Your task to perform on an android device: open app "The Home Depot" (install if not already installed) and go to login screen Image 0: 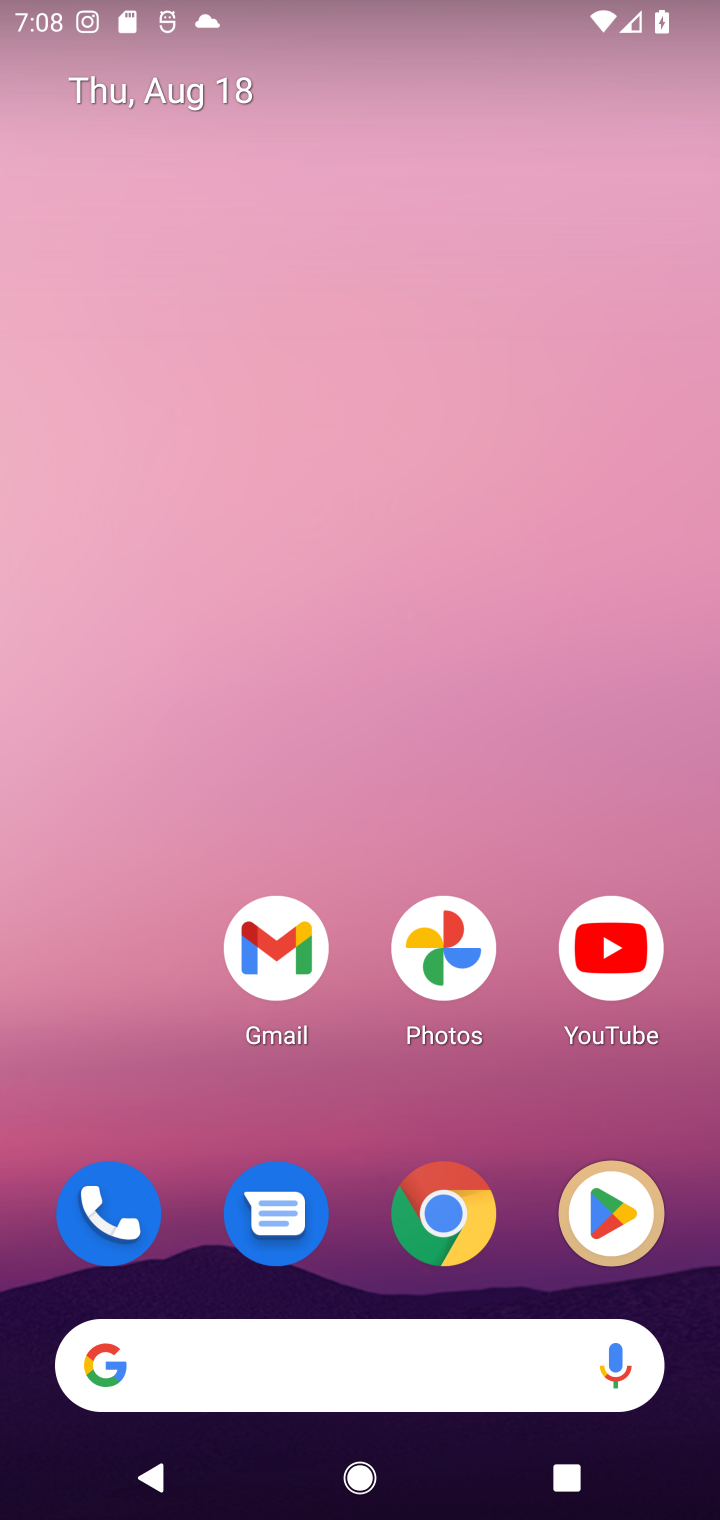
Step 0: press home button
Your task to perform on an android device: open app "The Home Depot" (install if not already installed) and go to login screen Image 1: 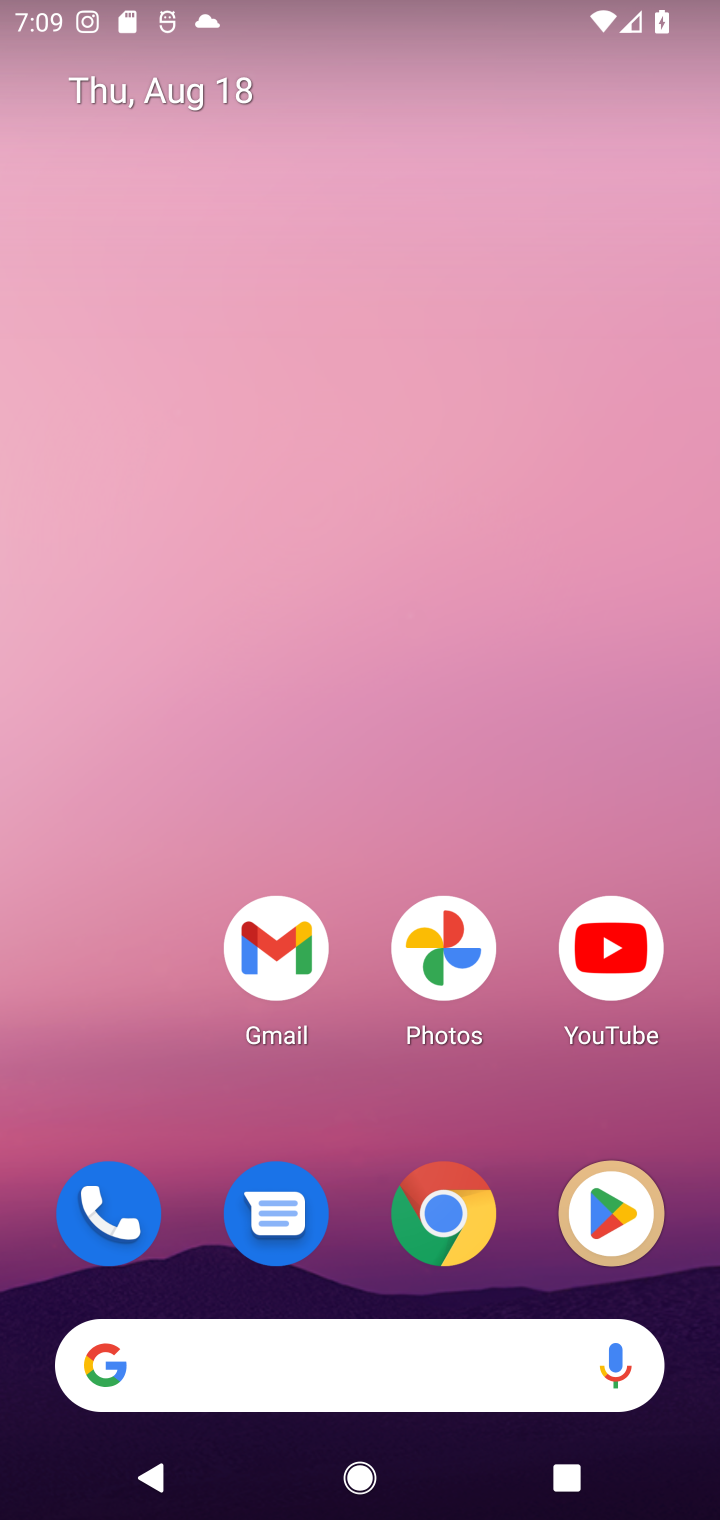
Step 1: drag from (397, 1094) to (369, 2)
Your task to perform on an android device: open app "The Home Depot" (install if not already installed) and go to login screen Image 2: 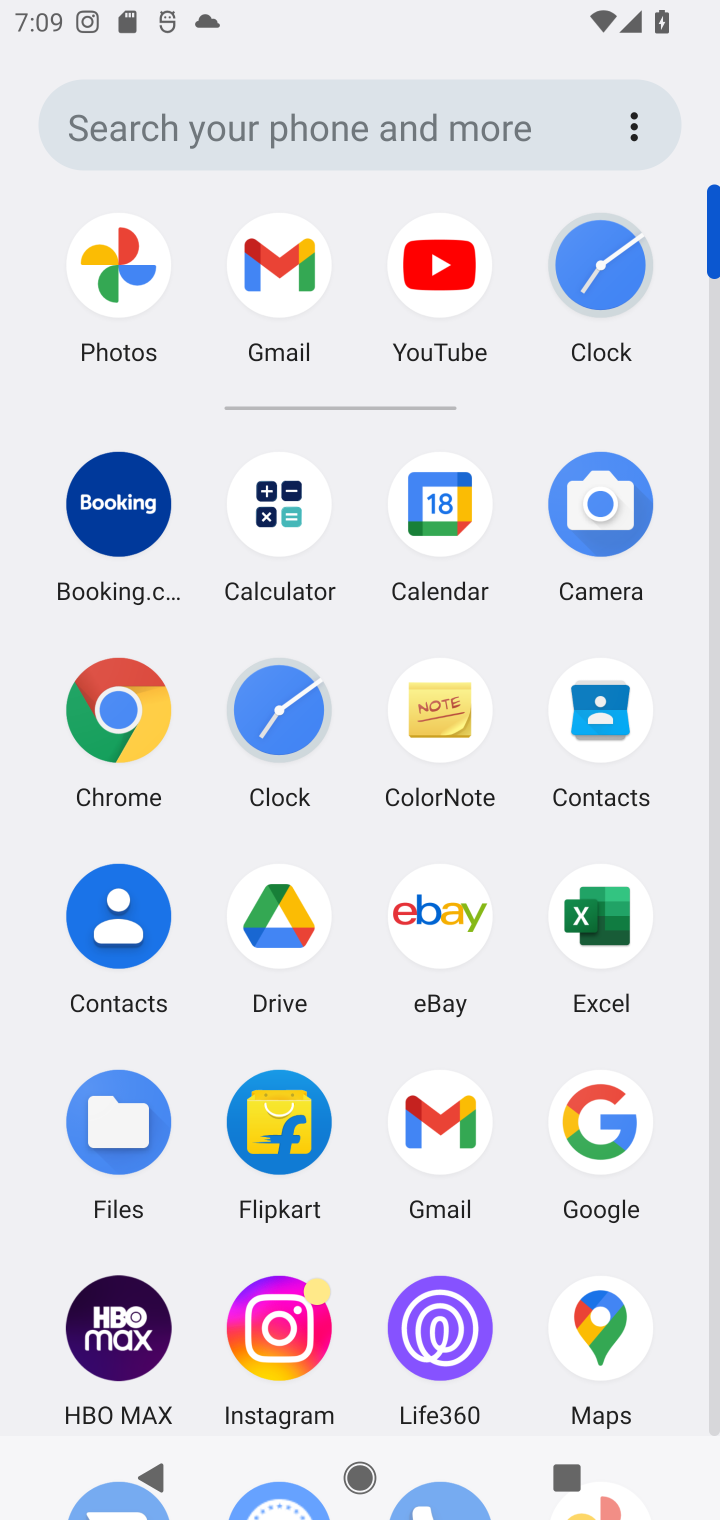
Step 2: drag from (370, 1222) to (327, 654)
Your task to perform on an android device: open app "The Home Depot" (install if not already installed) and go to login screen Image 3: 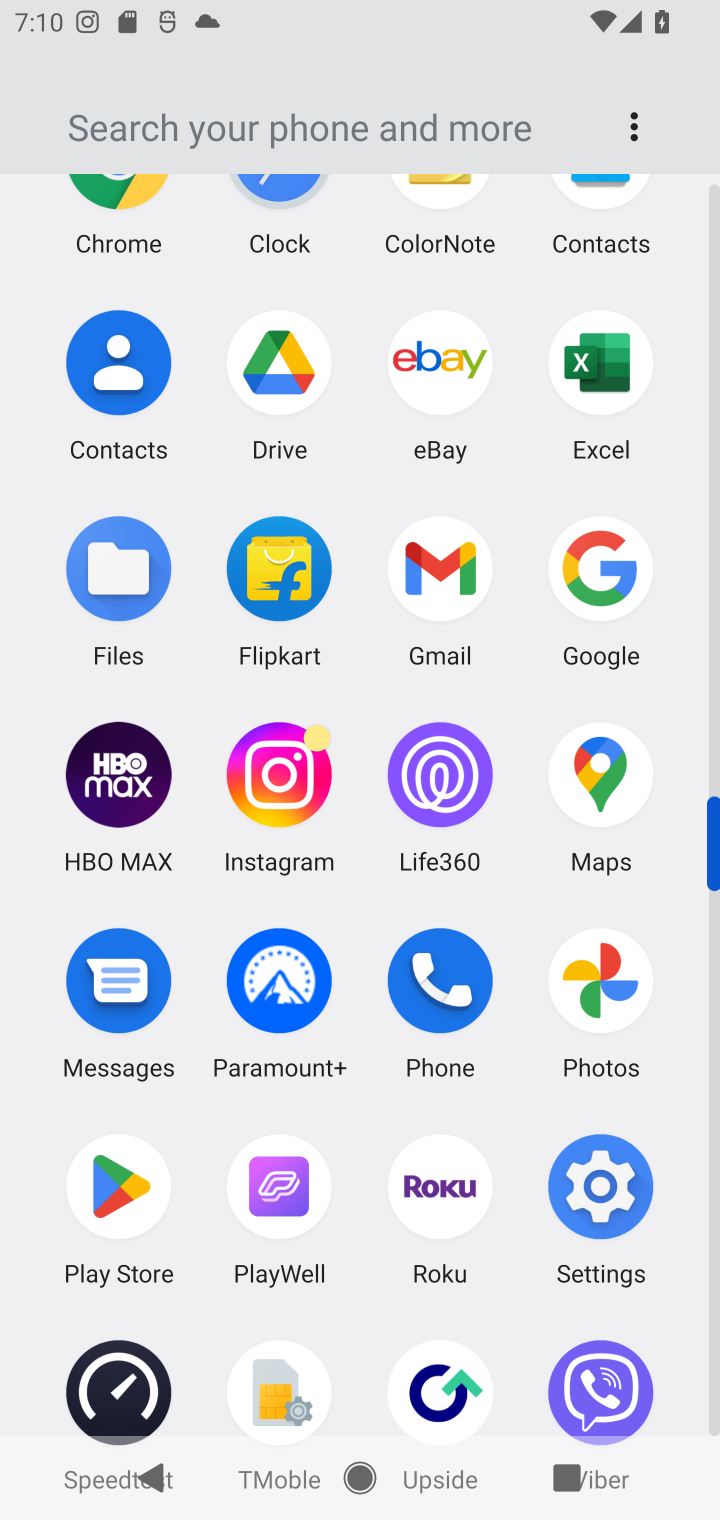
Step 3: click (127, 1183)
Your task to perform on an android device: open app "The Home Depot" (install if not already installed) and go to login screen Image 4: 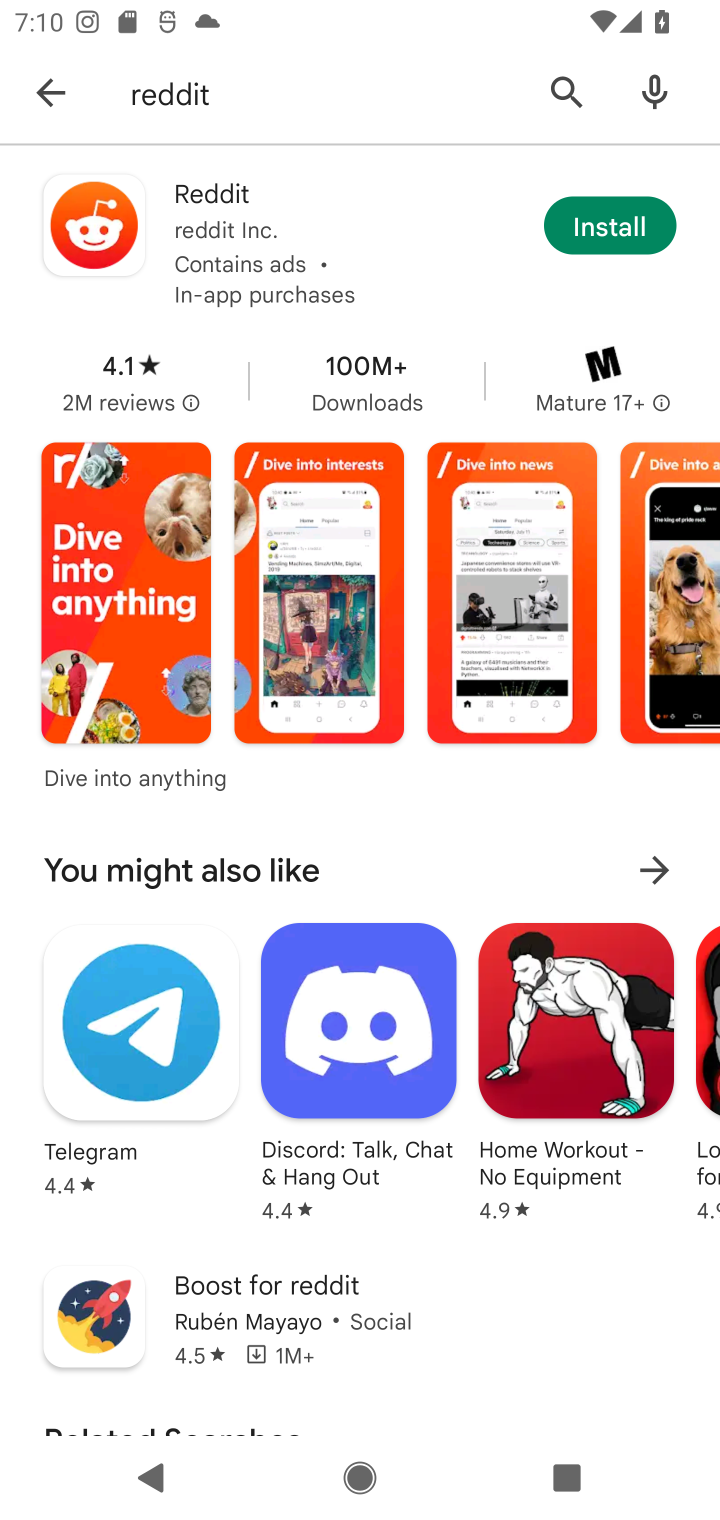
Step 4: click (566, 86)
Your task to perform on an android device: open app "The Home Depot" (install if not already installed) and go to login screen Image 5: 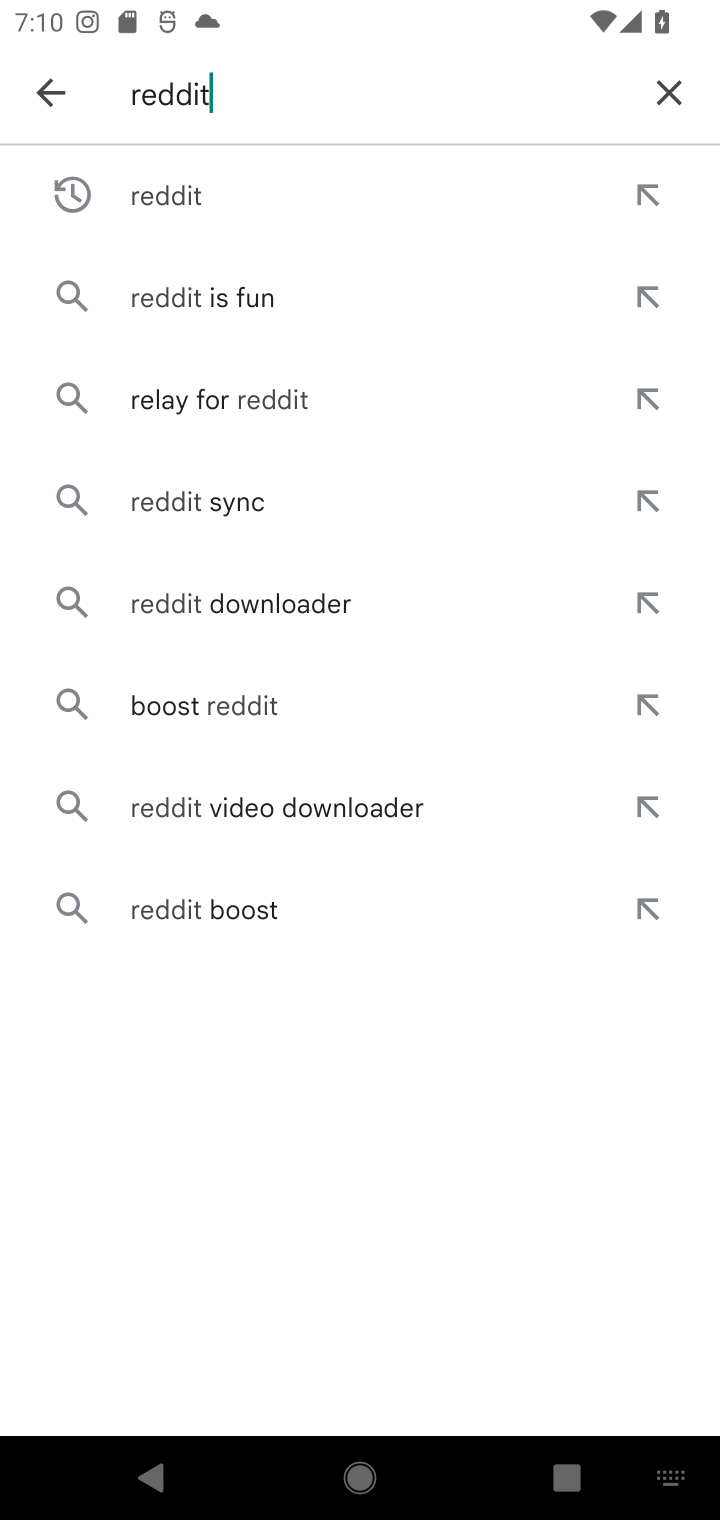
Step 5: click (669, 90)
Your task to perform on an android device: open app "The Home Depot" (install if not already installed) and go to login screen Image 6: 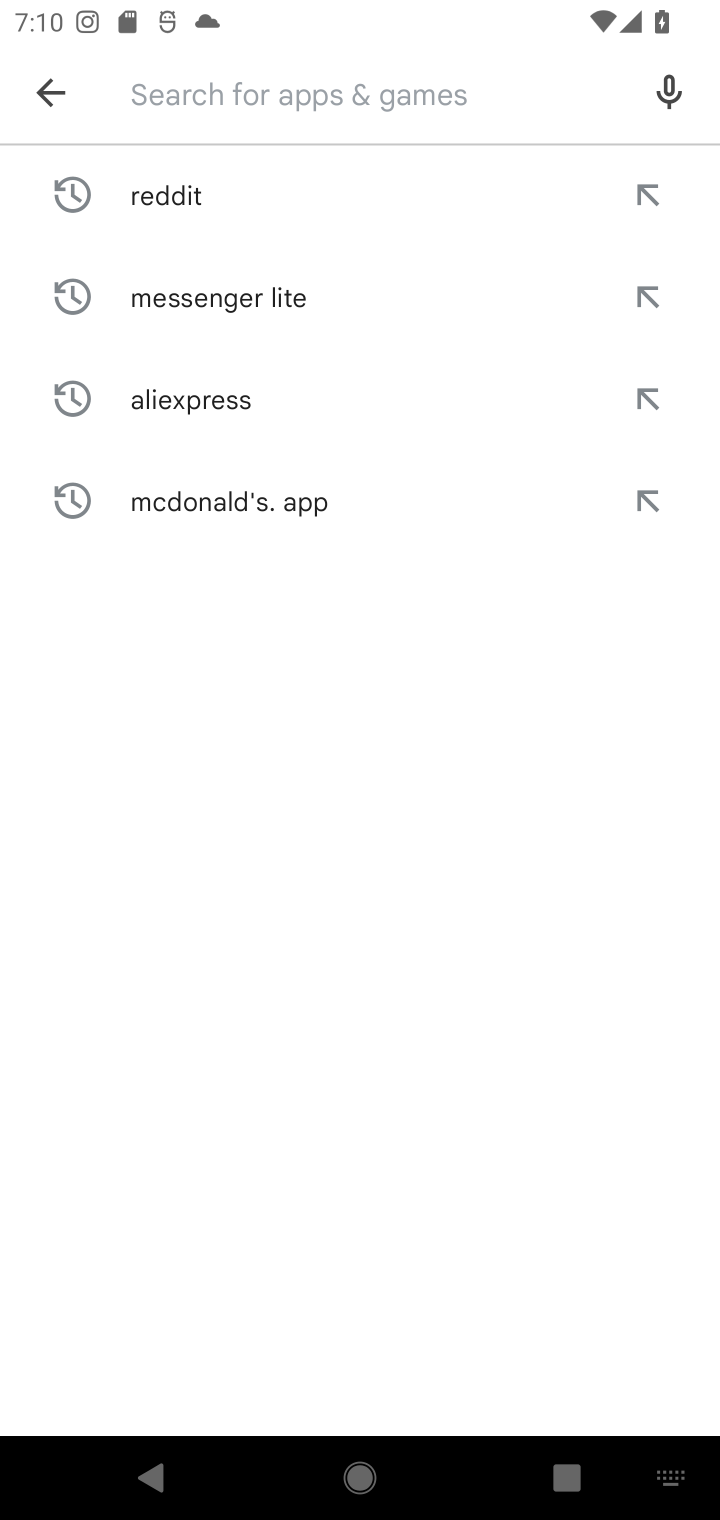
Step 6: type "The Home Depot"
Your task to perform on an android device: open app "The Home Depot" (install if not already installed) and go to login screen Image 7: 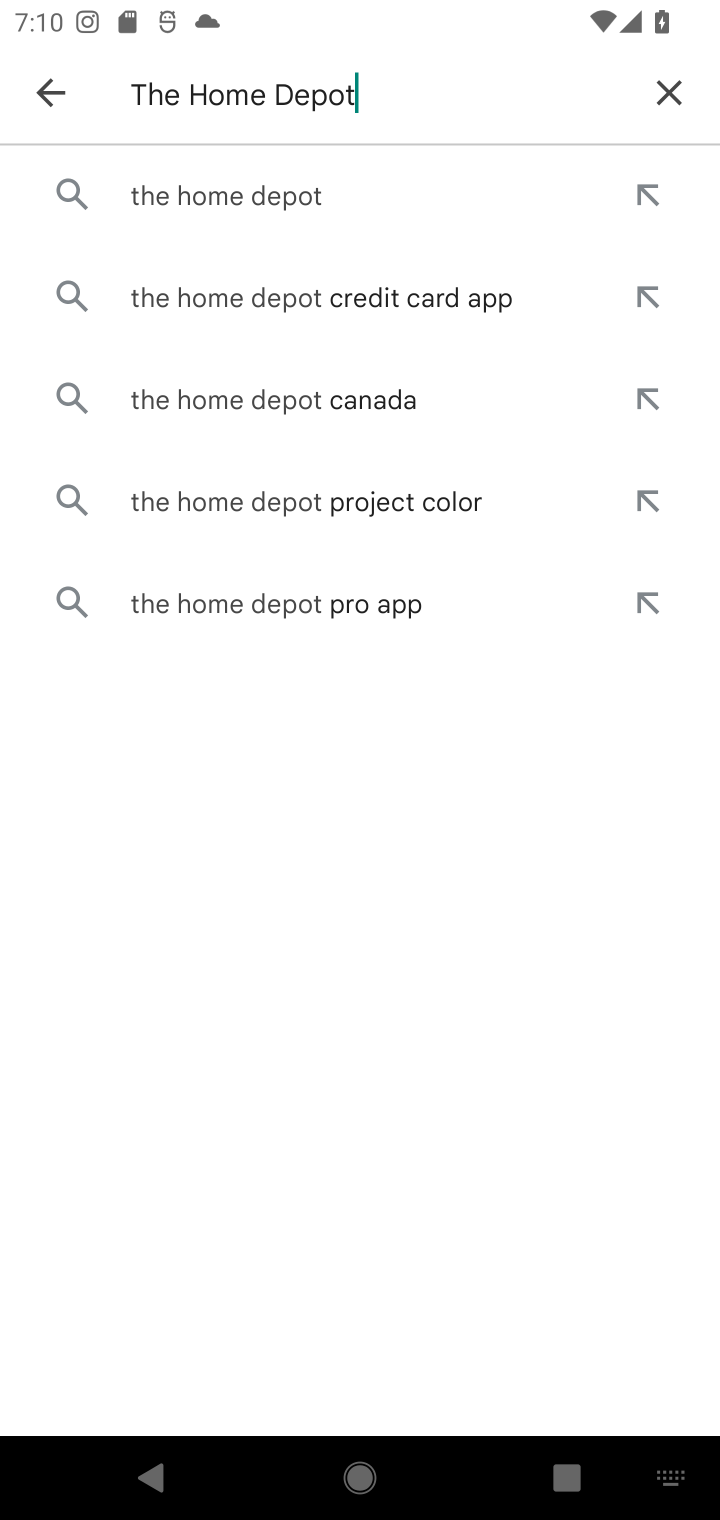
Step 7: click (326, 207)
Your task to perform on an android device: open app "The Home Depot" (install if not already installed) and go to login screen Image 8: 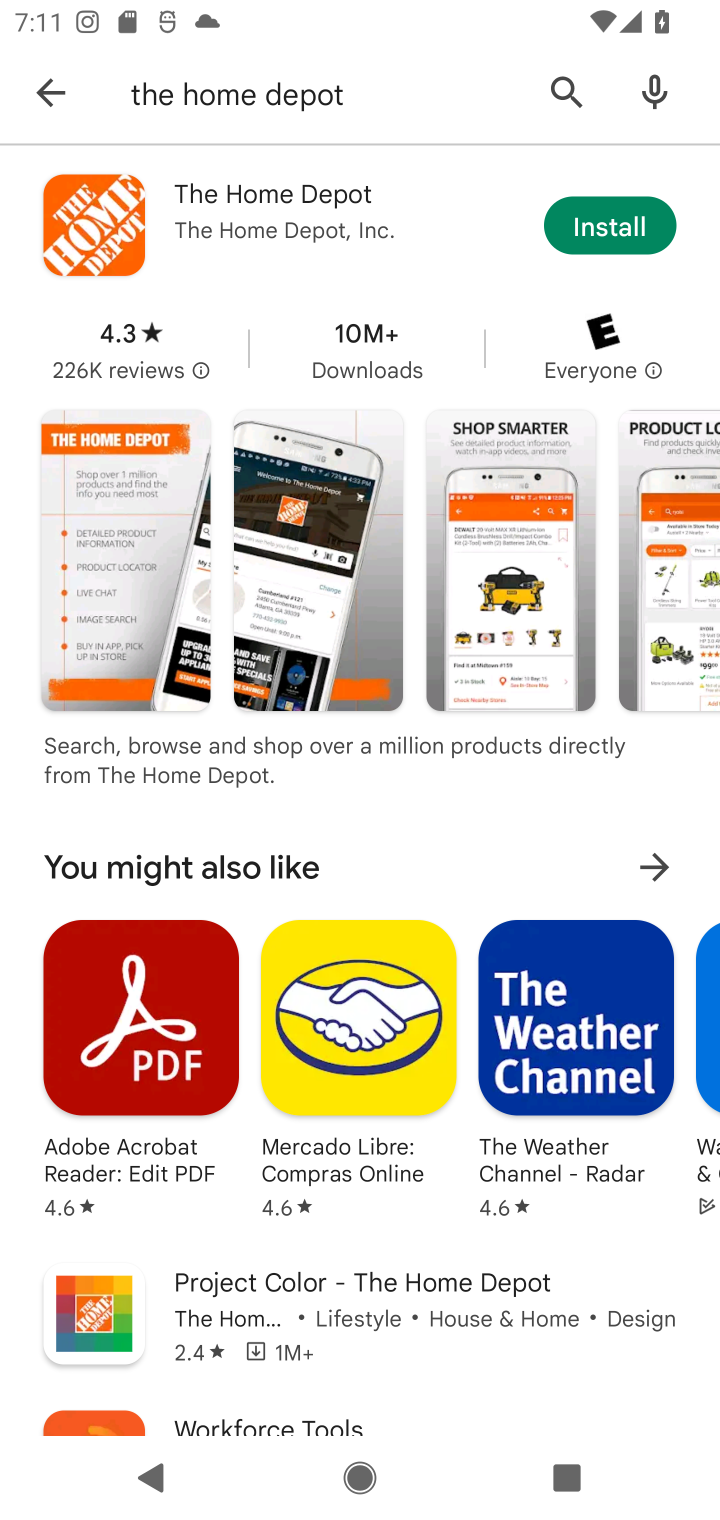
Step 8: click (607, 220)
Your task to perform on an android device: open app "The Home Depot" (install if not already installed) and go to login screen Image 9: 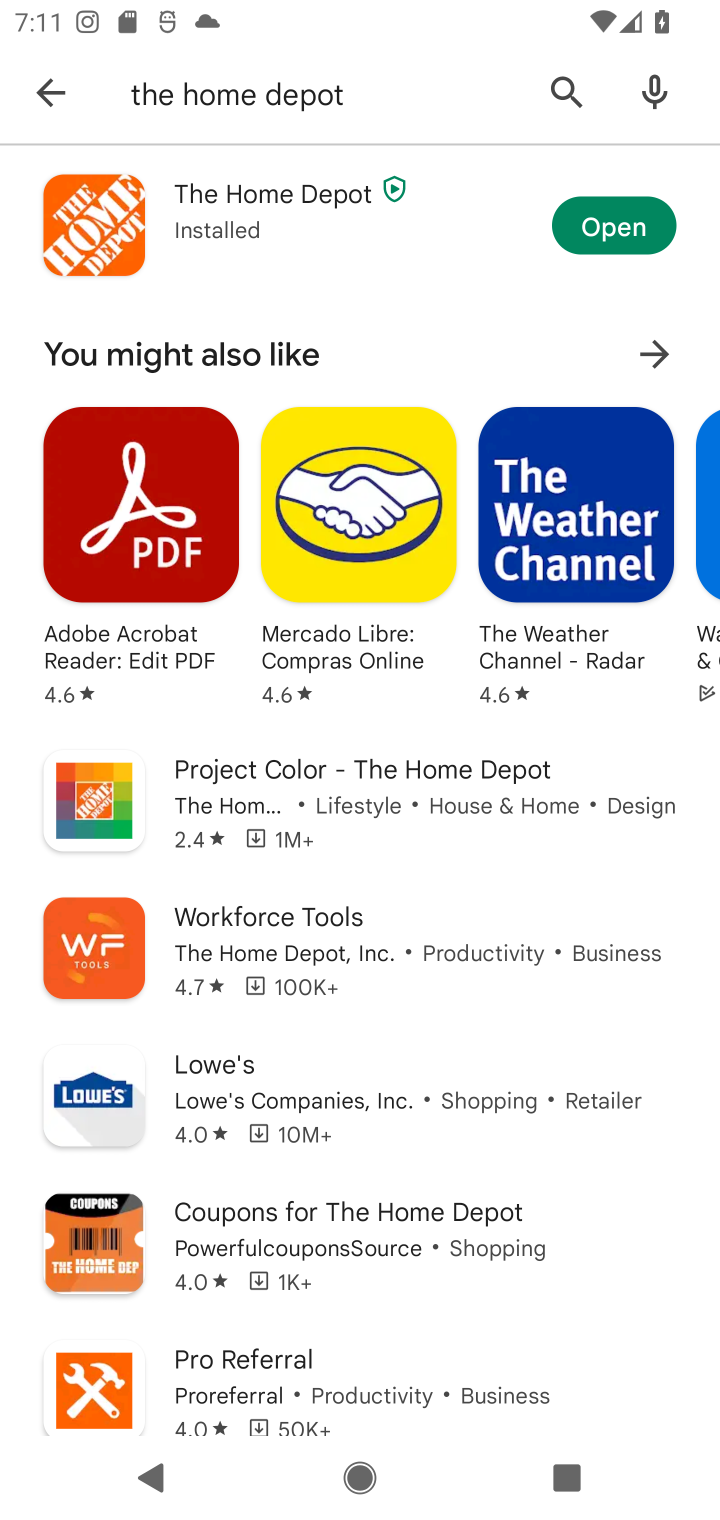
Step 9: click (622, 222)
Your task to perform on an android device: open app "The Home Depot" (install if not already installed) and go to login screen Image 10: 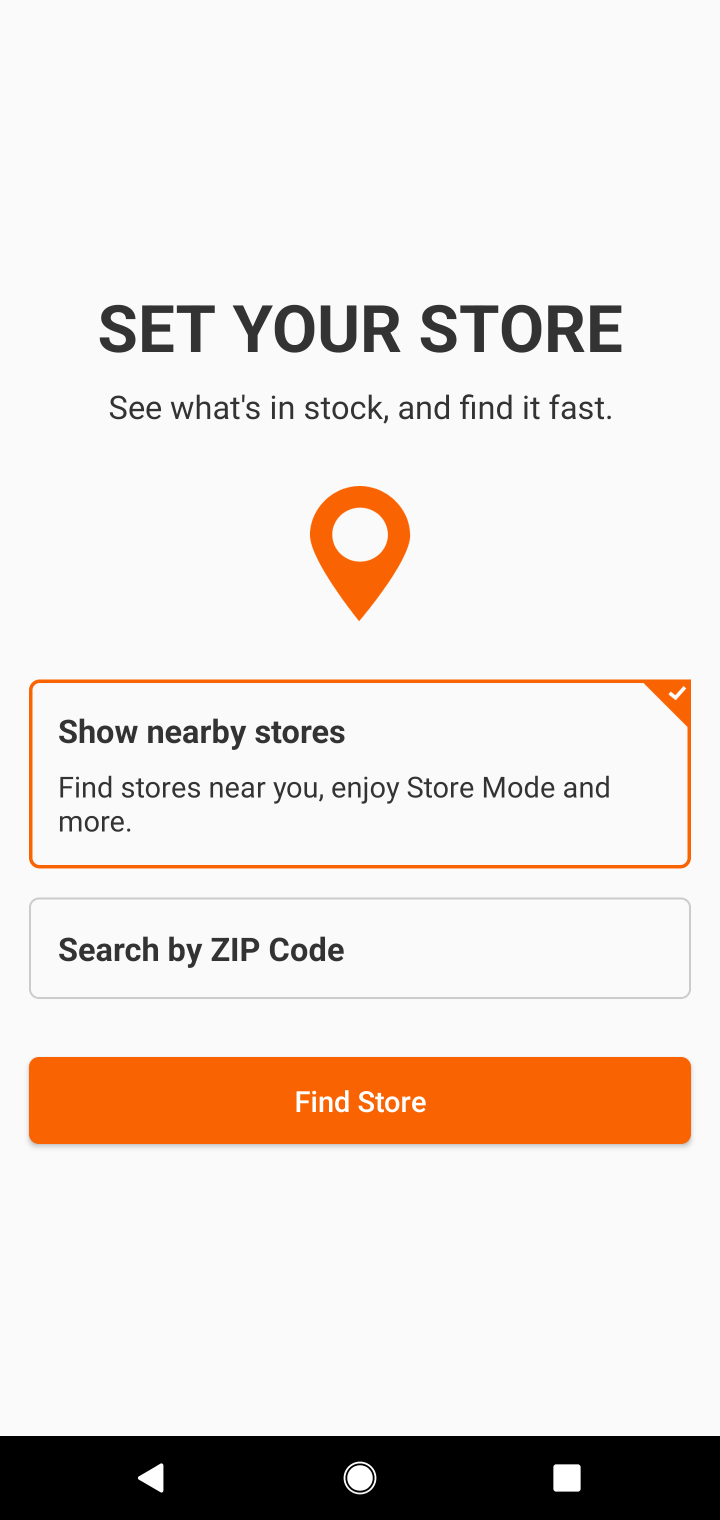
Step 10: click (370, 1103)
Your task to perform on an android device: open app "The Home Depot" (install if not already installed) and go to login screen Image 11: 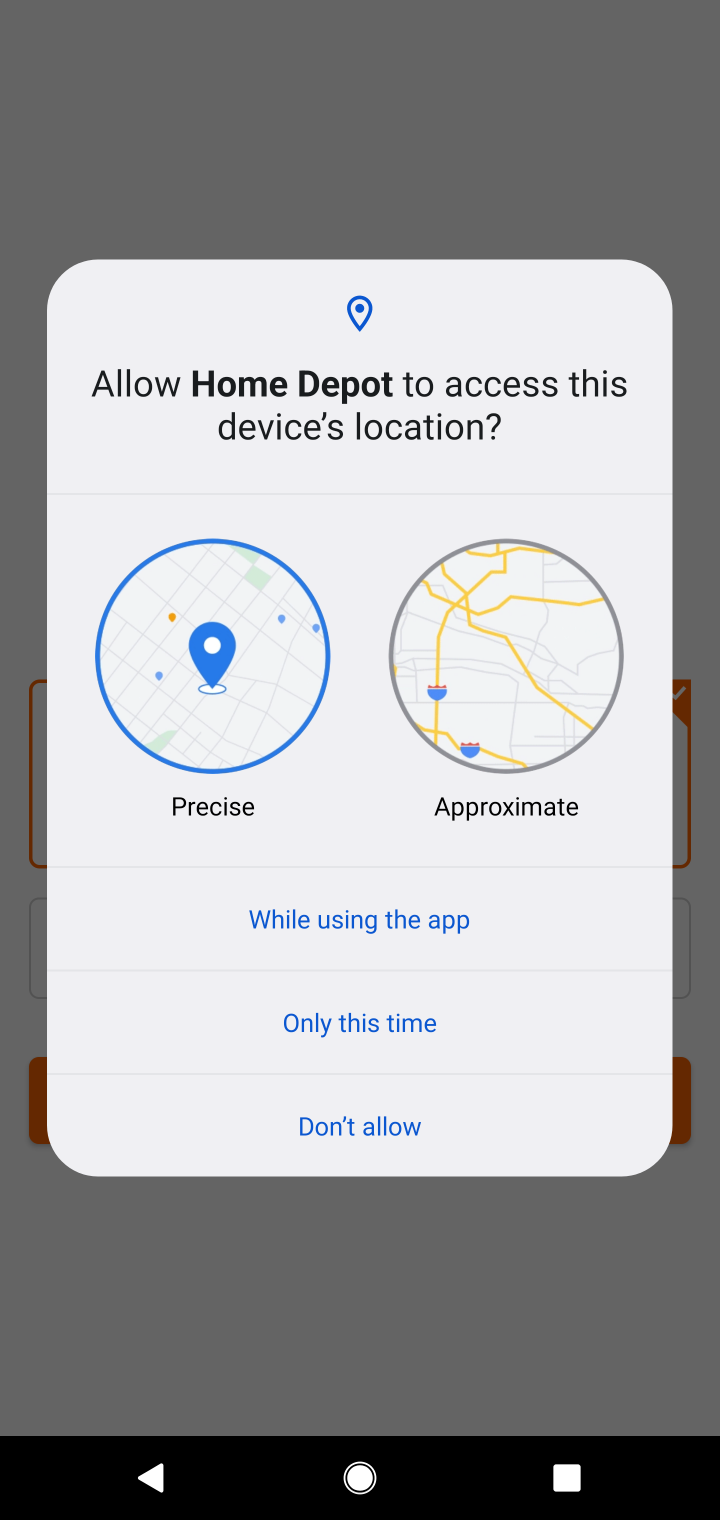
Step 11: task complete